Your task to perform on an android device: Show me recent news Image 0: 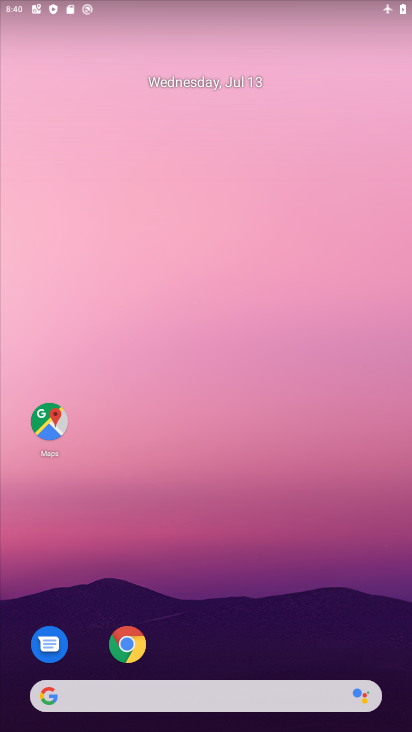
Step 0: drag from (237, 367) to (237, 286)
Your task to perform on an android device: Show me recent news Image 1: 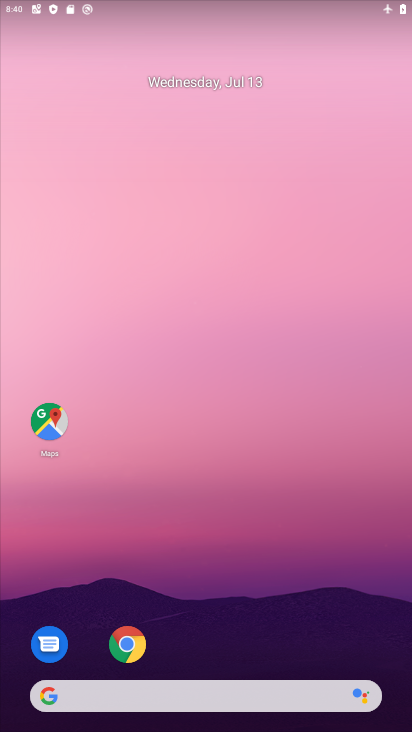
Step 1: drag from (241, 728) to (234, 277)
Your task to perform on an android device: Show me recent news Image 2: 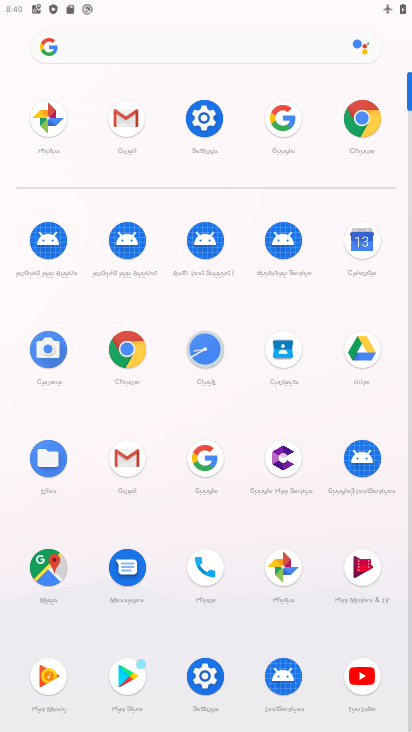
Step 2: click (206, 456)
Your task to perform on an android device: Show me recent news Image 3: 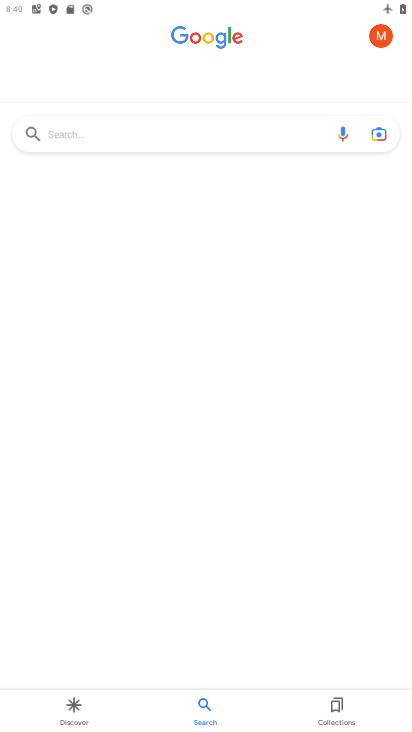
Step 3: click (68, 713)
Your task to perform on an android device: Show me recent news Image 4: 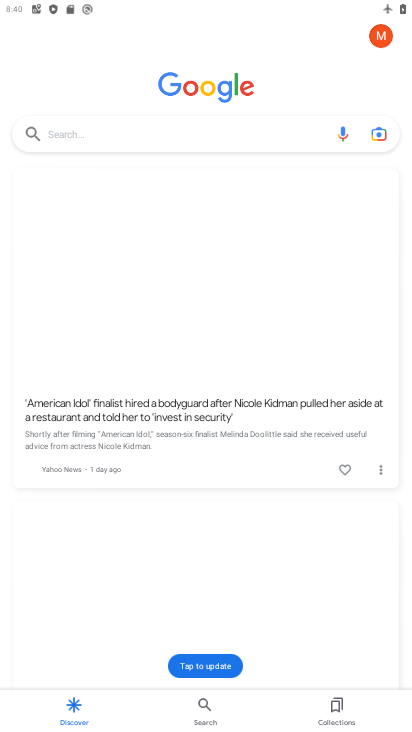
Step 4: task complete